Your task to perform on an android device: Go to internet settings Image 0: 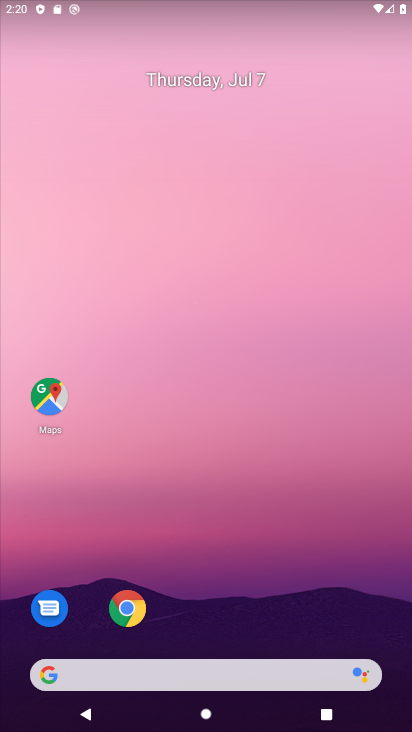
Step 0: drag from (227, 611) to (191, 173)
Your task to perform on an android device: Go to internet settings Image 1: 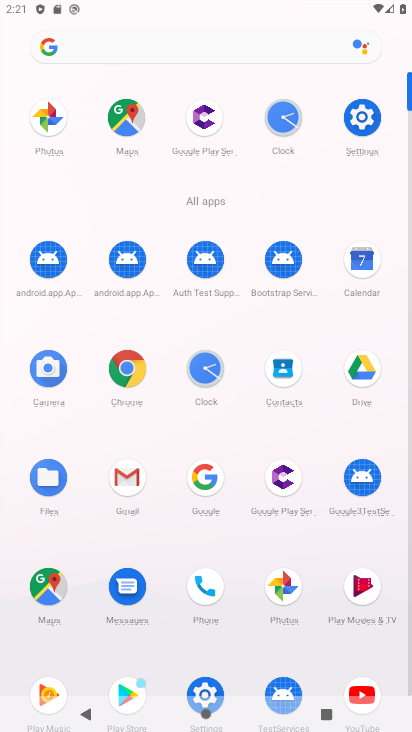
Step 1: click (365, 123)
Your task to perform on an android device: Go to internet settings Image 2: 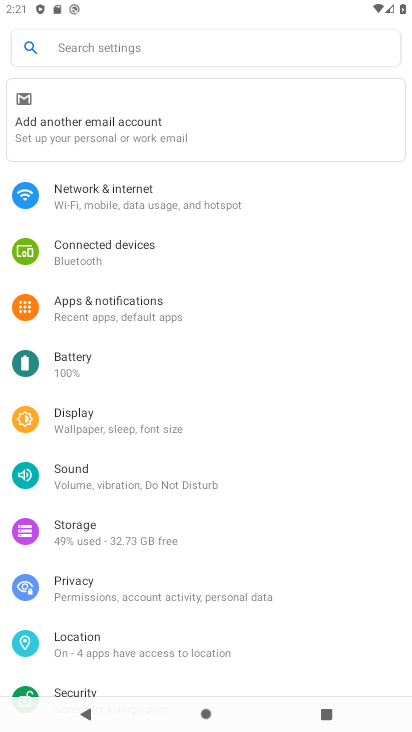
Step 2: click (246, 191)
Your task to perform on an android device: Go to internet settings Image 3: 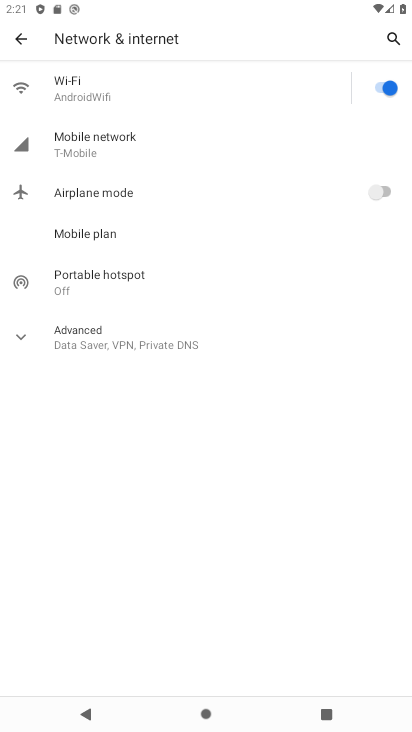
Step 3: task complete